Your task to perform on an android device: open a new tab in the chrome app Image 0: 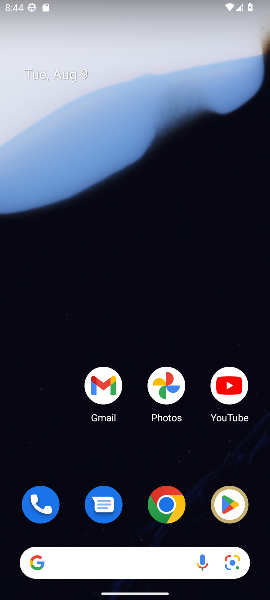
Step 0: click (163, 506)
Your task to perform on an android device: open a new tab in the chrome app Image 1: 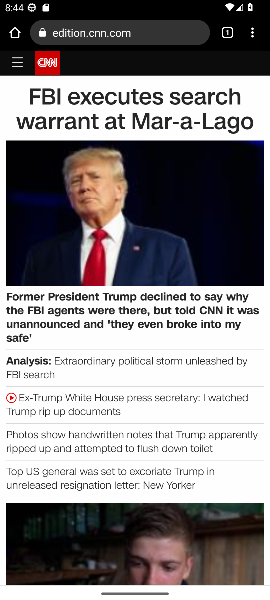
Step 1: click (251, 33)
Your task to perform on an android device: open a new tab in the chrome app Image 2: 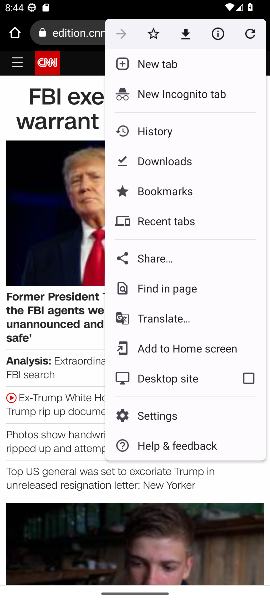
Step 2: click (158, 61)
Your task to perform on an android device: open a new tab in the chrome app Image 3: 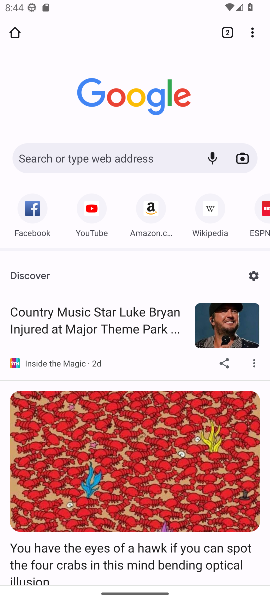
Step 3: task complete